Your task to perform on an android device: turn on javascript in the chrome app Image 0: 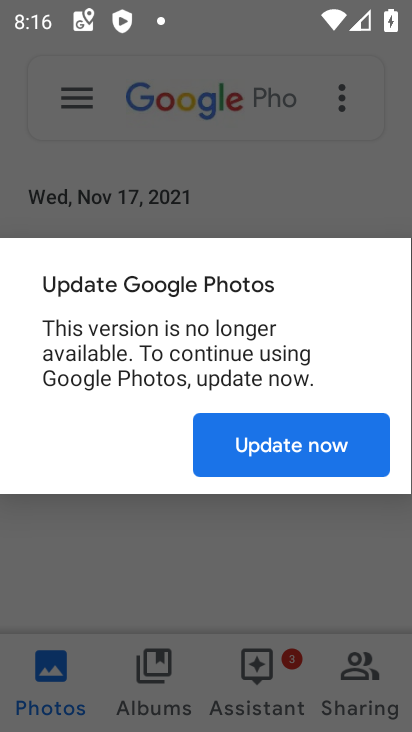
Step 0: press home button
Your task to perform on an android device: turn on javascript in the chrome app Image 1: 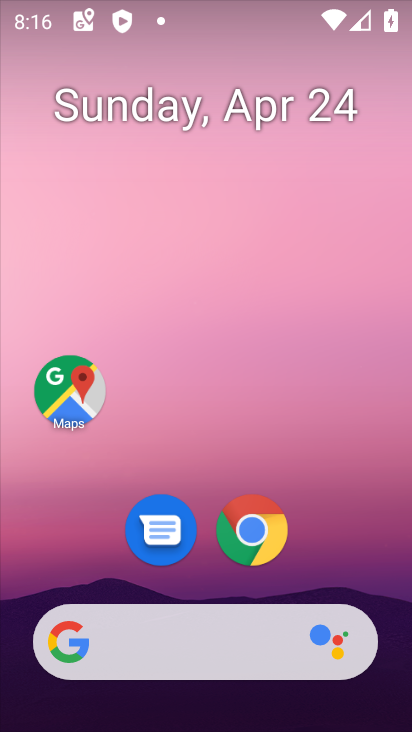
Step 1: click (250, 530)
Your task to perform on an android device: turn on javascript in the chrome app Image 2: 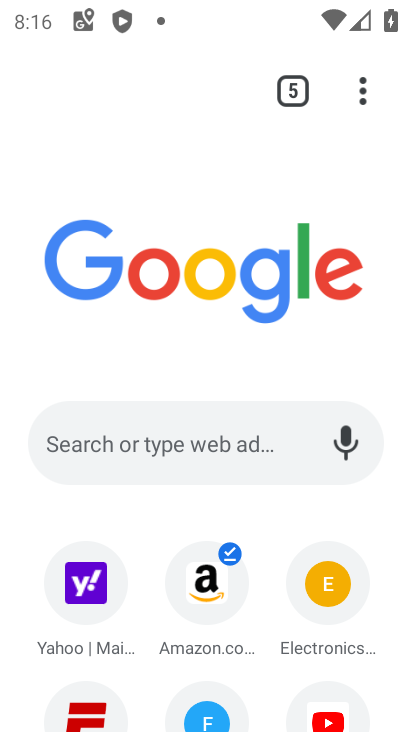
Step 2: click (360, 97)
Your task to perform on an android device: turn on javascript in the chrome app Image 3: 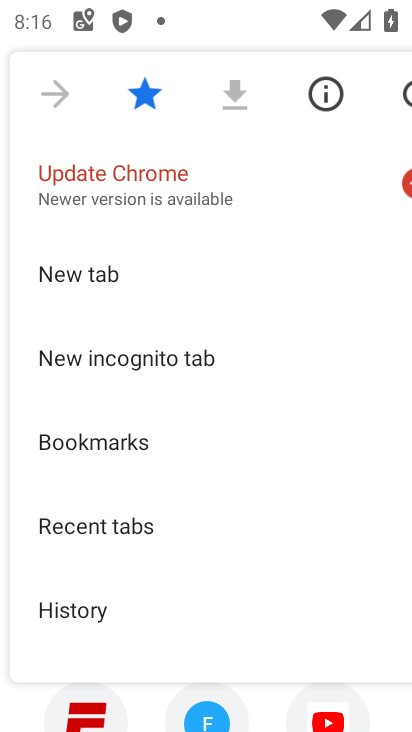
Step 3: drag from (129, 562) to (182, 178)
Your task to perform on an android device: turn on javascript in the chrome app Image 4: 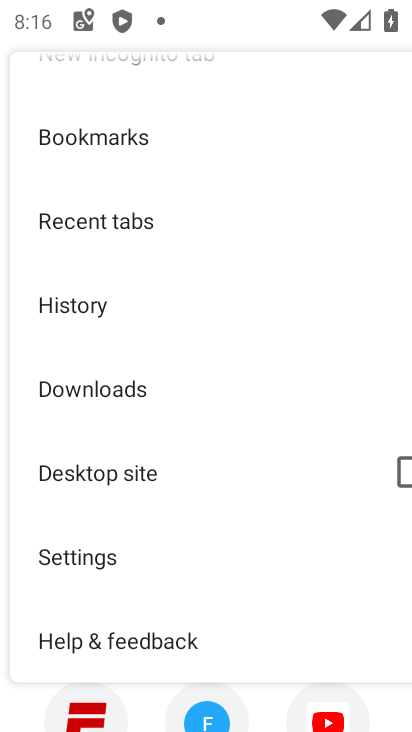
Step 4: drag from (165, 606) to (215, 288)
Your task to perform on an android device: turn on javascript in the chrome app Image 5: 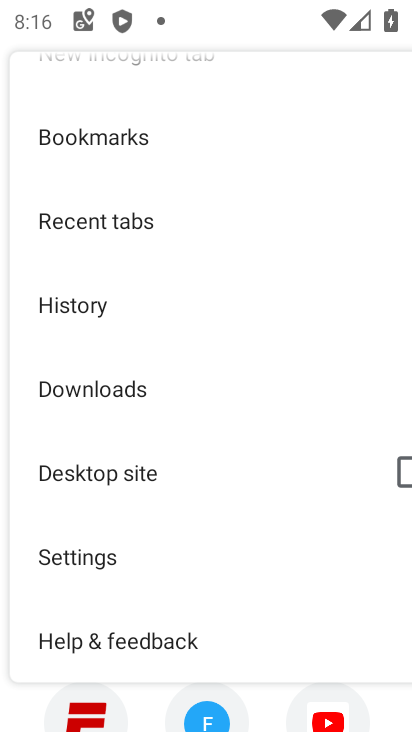
Step 5: click (129, 568)
Your task to perform on an android device: turn on javascript in the chrome app Image 6: 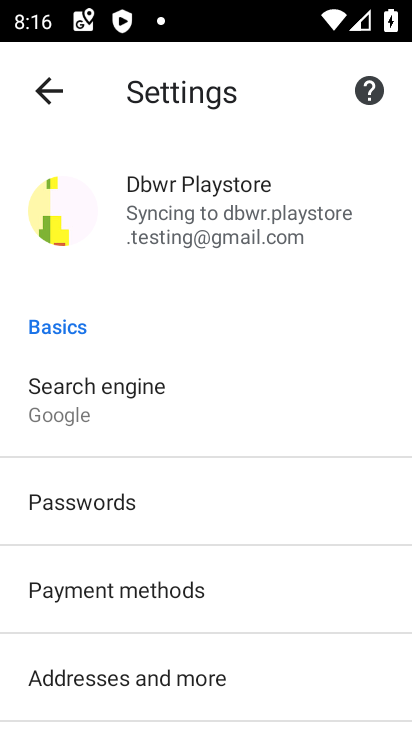
Step 6: drag from (125, 656) to (187, 306)
Your task to perform on an android device: turn on javascript in the chrome app Image 7: 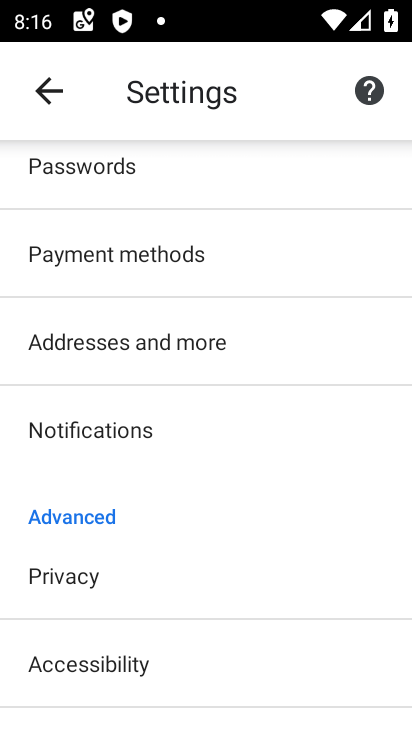
Step 7: drag from (118, 654) to (167, 321)
Your task to perform on an android device: turn on javascript in the chrome app Image 8: 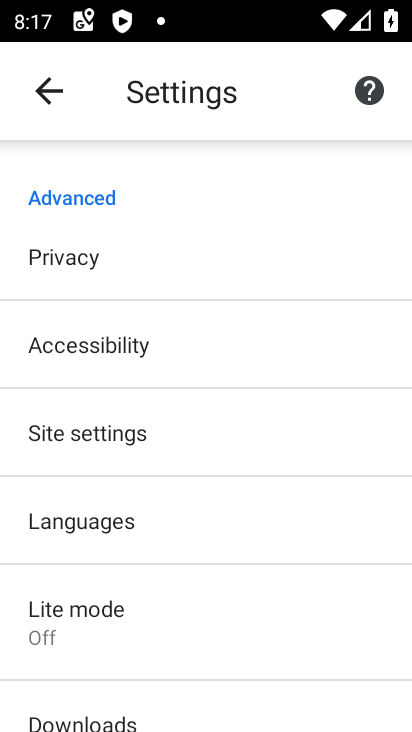
Step 8: click (114, 422)
Your task to perform on an android device: turn on javascript in the chrome app Image 9: 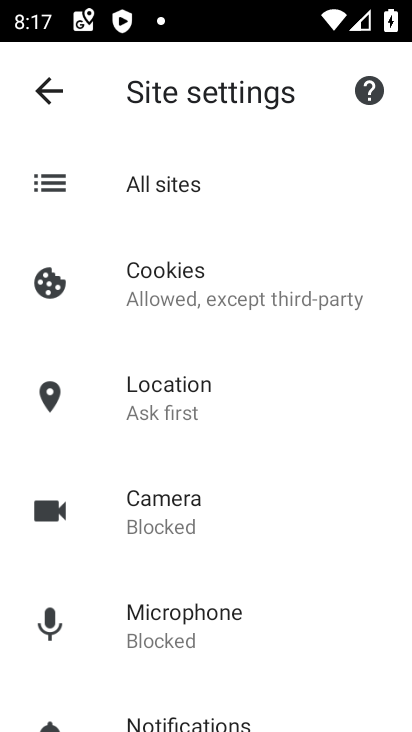
Step 9: drag from (117, 673) to (153, 271)
Your task to perform on an android device: turn on javascript in the chrome app Image 10: 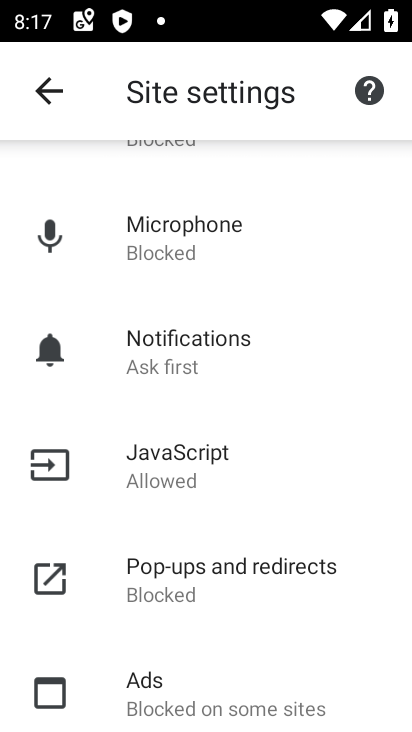
Step 10: click (167, 477)
Your task to perform on an android device: turn on javascript in the chrome app Image 11: 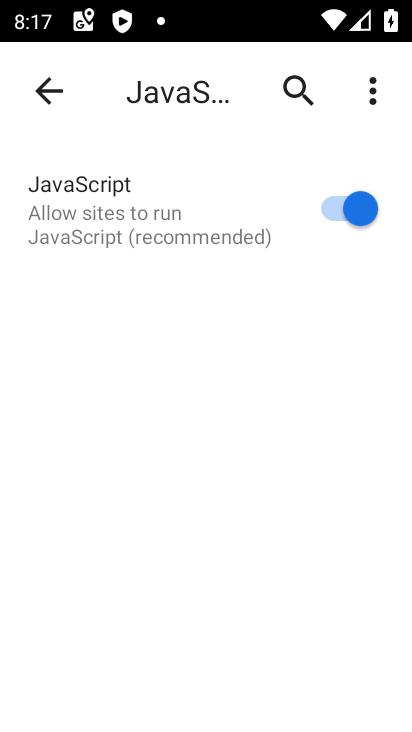
Step 11: task complete